Your task to perform on an android device: turn on showing notifications on the lock screen Image 0: 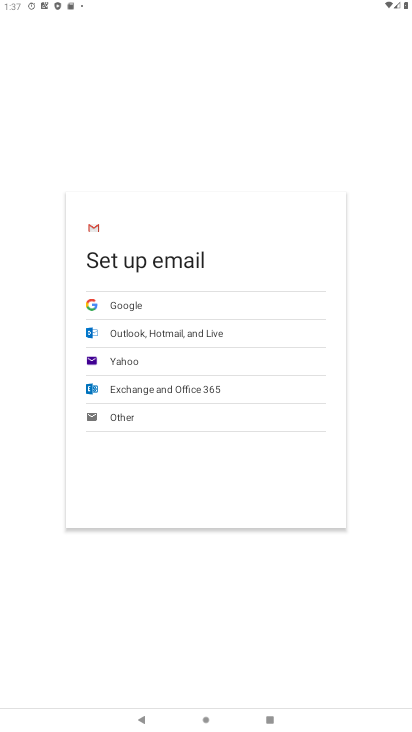
Step 0: press home button
Your task to perform on an android device: turn on showing notifications on the lock screen Image 1: 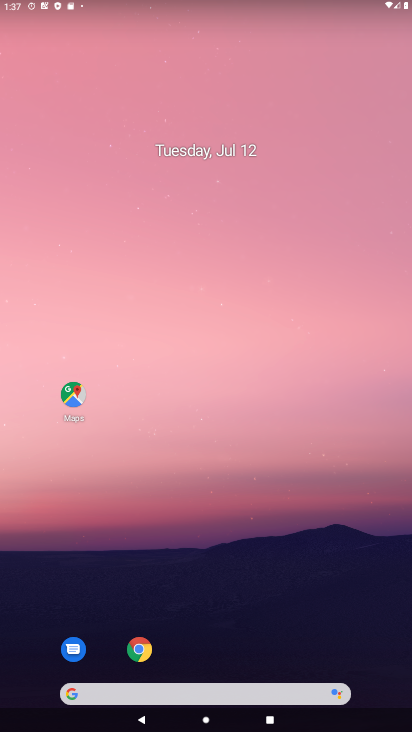
Step 1: drag from (350, 563) to (193, 85)
Your task to perform on an android device: turn on showing notifications on the lock screen Image 2: 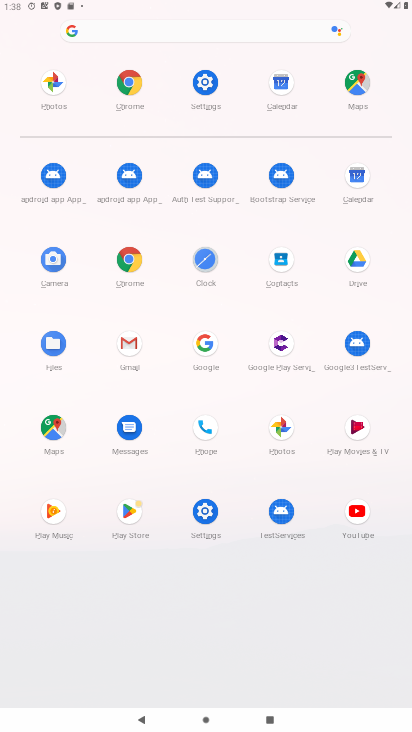
Step 2: click (206, 100)
Your task to perform on an android device: turn on showing notifications on the lock screen Image 3: 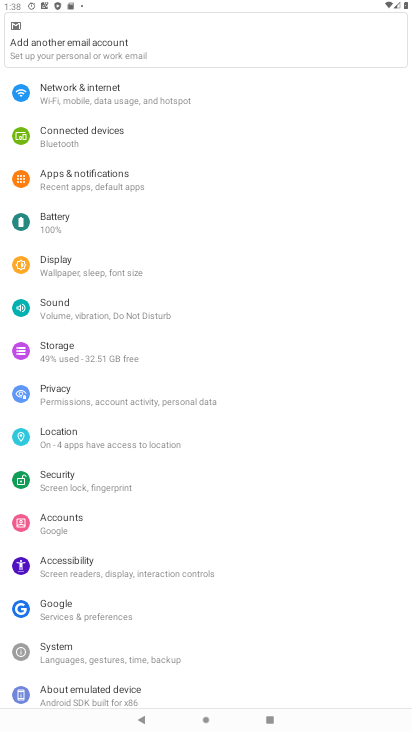
Step 3: click (98, 193)
Your task to perform on an android device: turn on showing notifications on the lock screen Image 4: 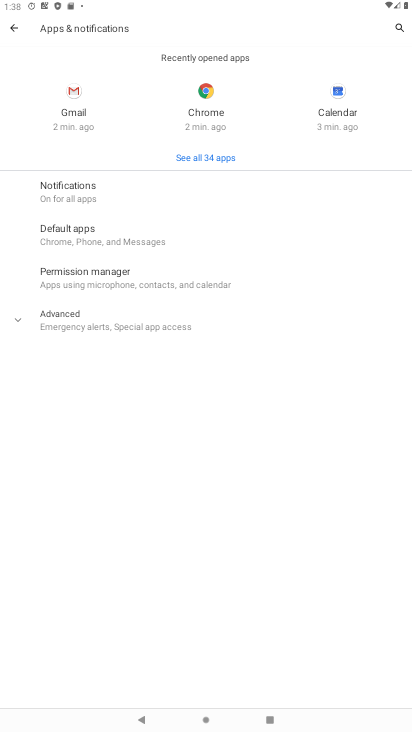
Step 4: click (87, 335)
Your task to perform on an android device: turn on showing notifications on the lock screen Image 5: 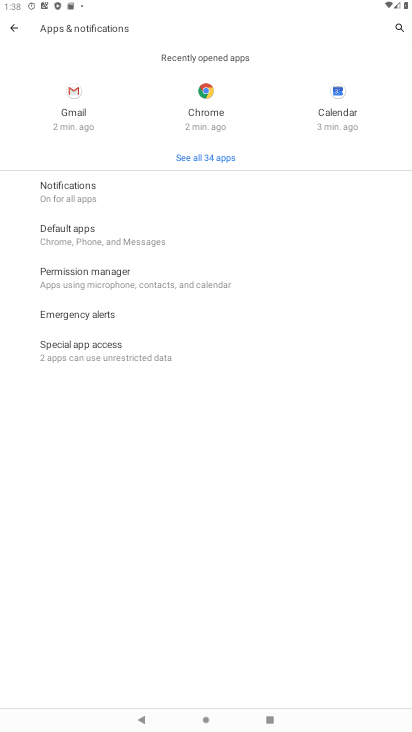
Step 5: click (109, 197)
Your task to perform on an android device: turn on showing notifications on the lock screen Image 6: 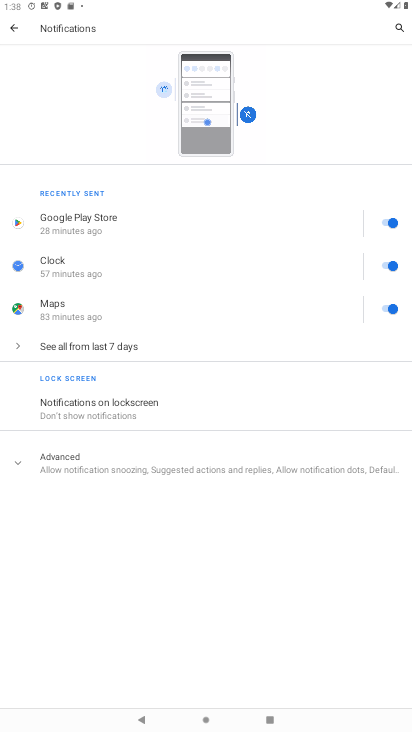
Step 6: click (154, 417)
Your task to perform on an android device: turn on showing notifications on the lock screen Image 7: 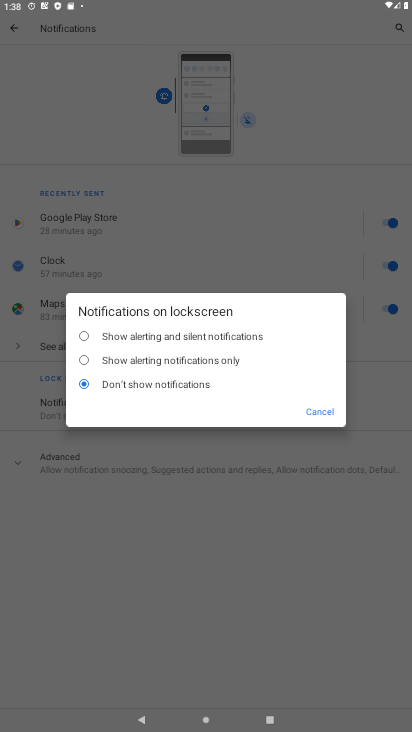
Step 7: click (87, 339)
Your task to perform on an android device: turn on showing notifications on the lock screen Image 8: 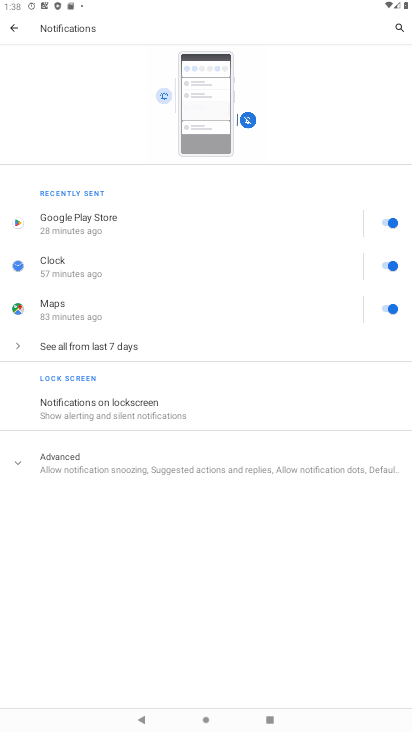
Step 8: task complete